Your task to perform on an android device: turn on the 12-hour format for clock Image 0: 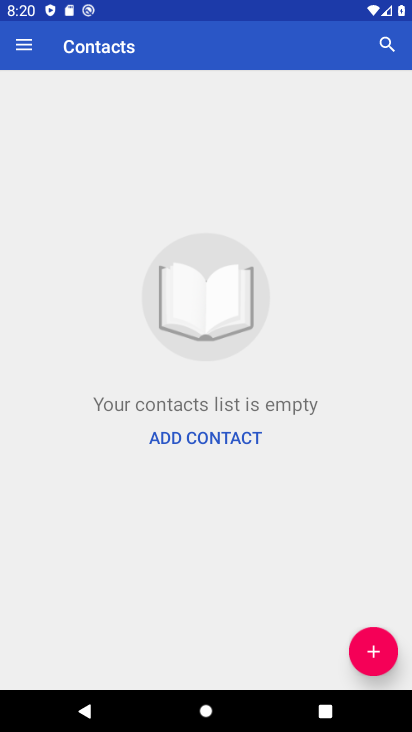
Step 0: press home button
Your task to perform on an android device: turn on the 12-hour format for clock Image 1: 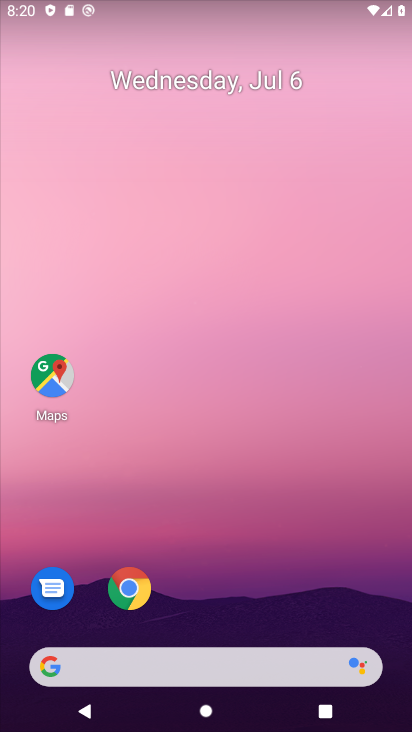
Step 1: drag from (326, 613) to (292, 118)
Your task to perform on an android device: turn on the 12-hour format for clock Image 2: 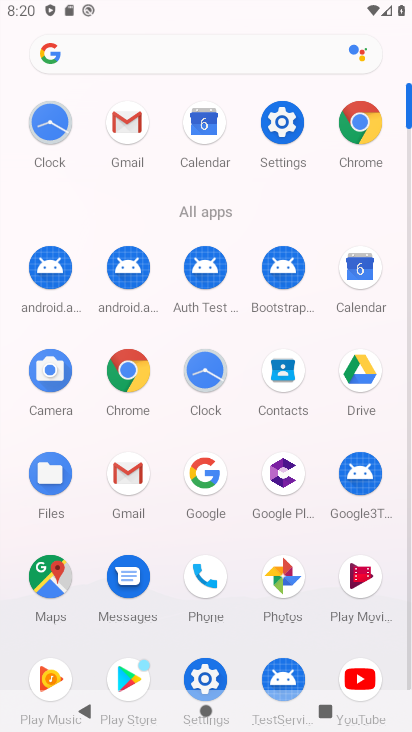
Step 2: click (48, 153)
Your task to perform on an android device: turn on the 12-hour format for clock Image 3: 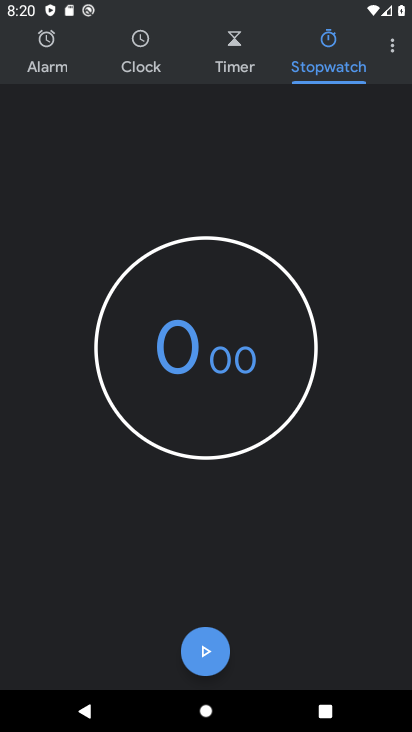
Step 3: click (388, 45)
Your task to perform on an android device: turn on the 12-hour format for clock Image 4: 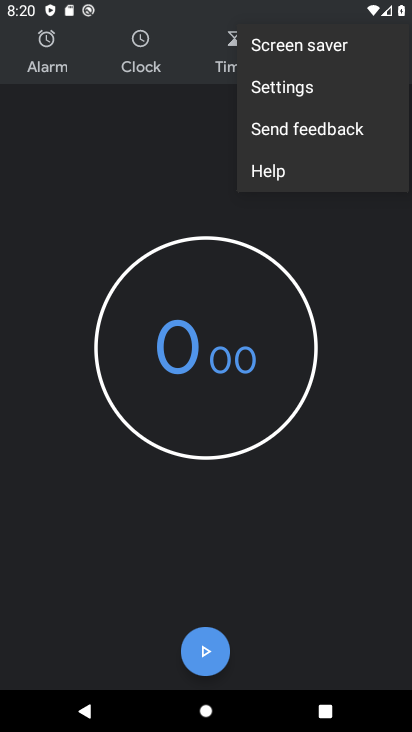
Step 4: click (360, 84)
Your task to perform on an android device: turn on the 12-hour format for clock Image 5: 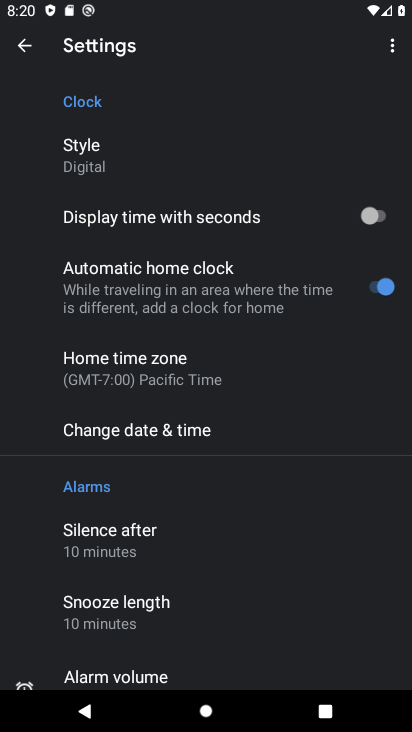
Step 5: drag from (313, 546) to (293, 384)
Your task to perform on an android device: turn on the 12-hour format for clock Image 6: 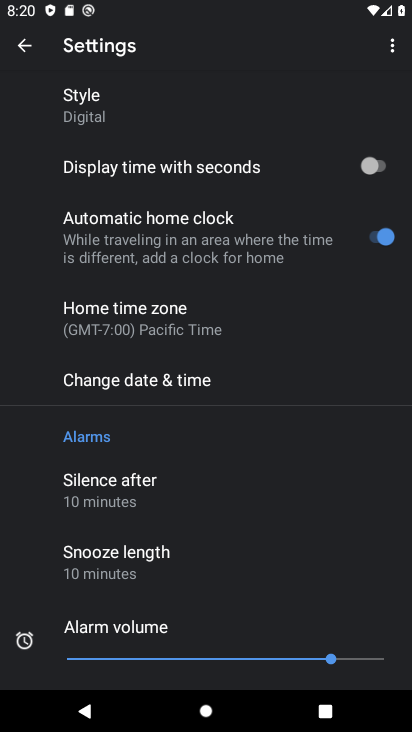
Step 6: click (293, 386)
Your task to perform on an android device: turn on the 12-hour format for clock Image 7: 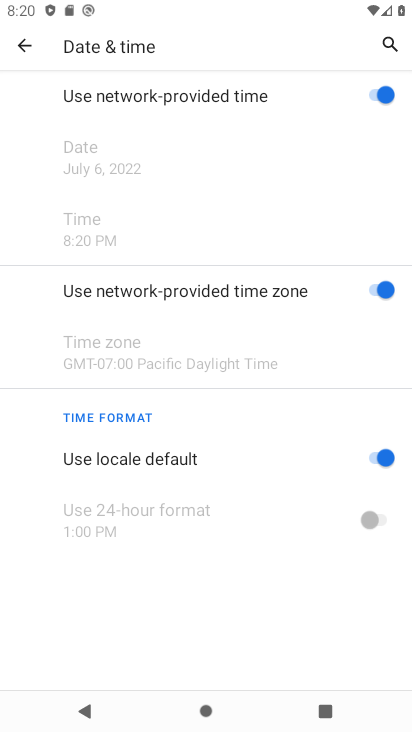
Step 7: task complete